Your task to perform on an android device: Go to Maps Image 0: 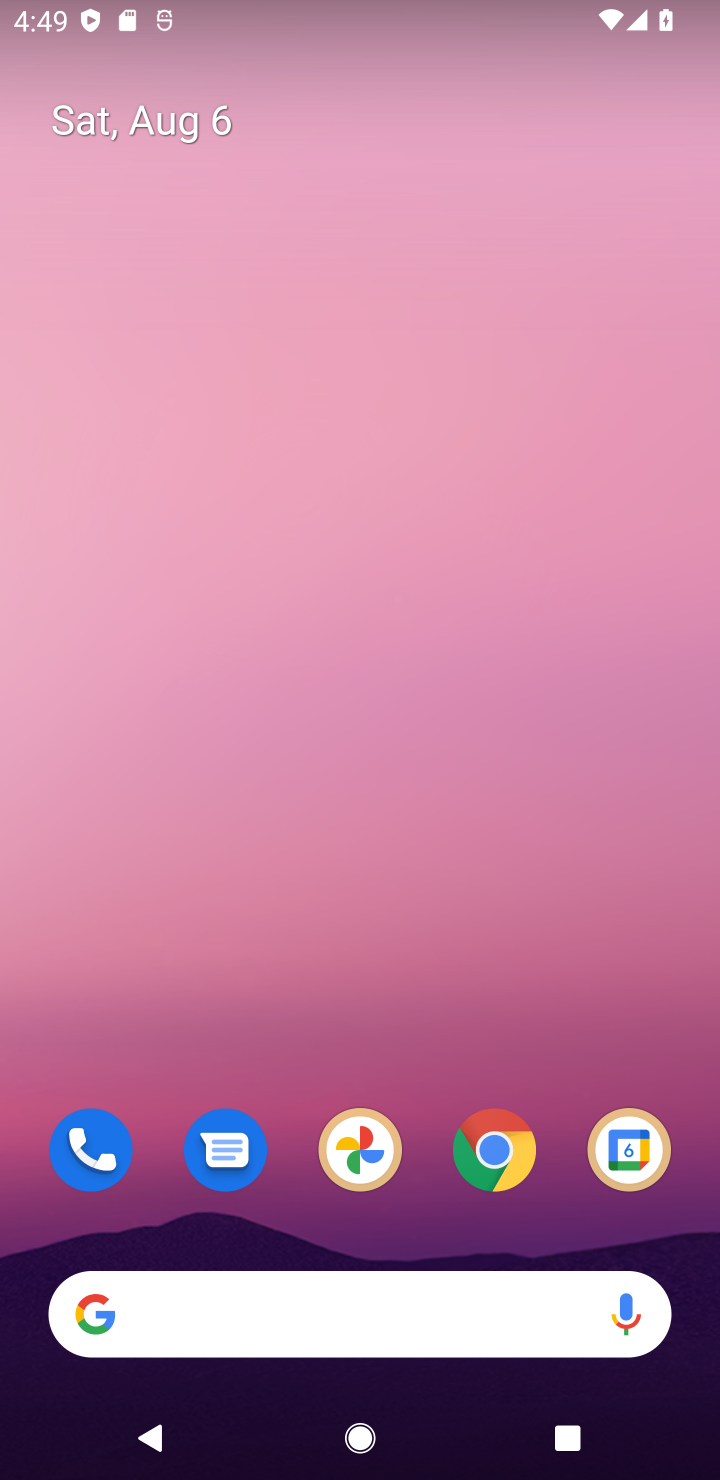
Step 0: drag from (351, 1064) to (354, 139)
Your task to perform on an android device: Go to Maps Image 1: 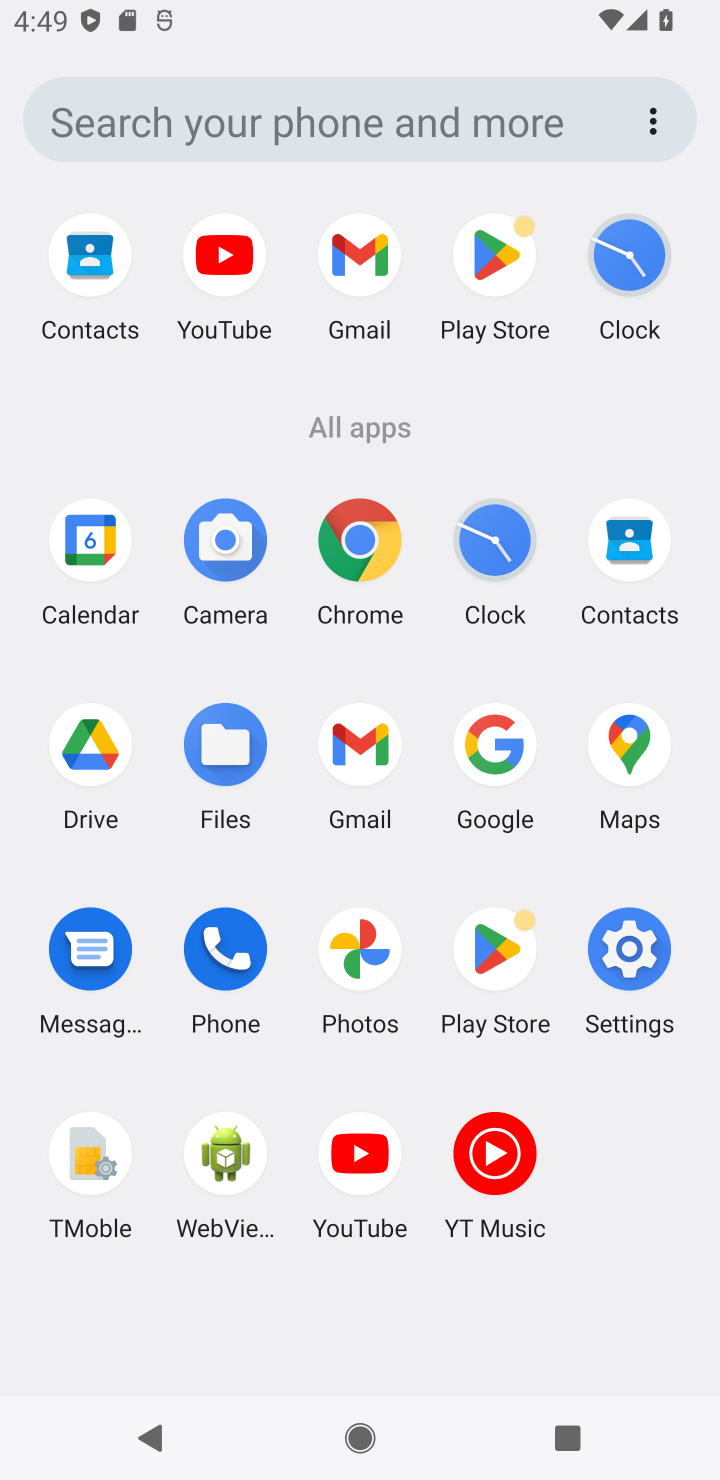
Step 1: click (634, 764)
Your task to perform on an android device: Go to Maps Image 2: 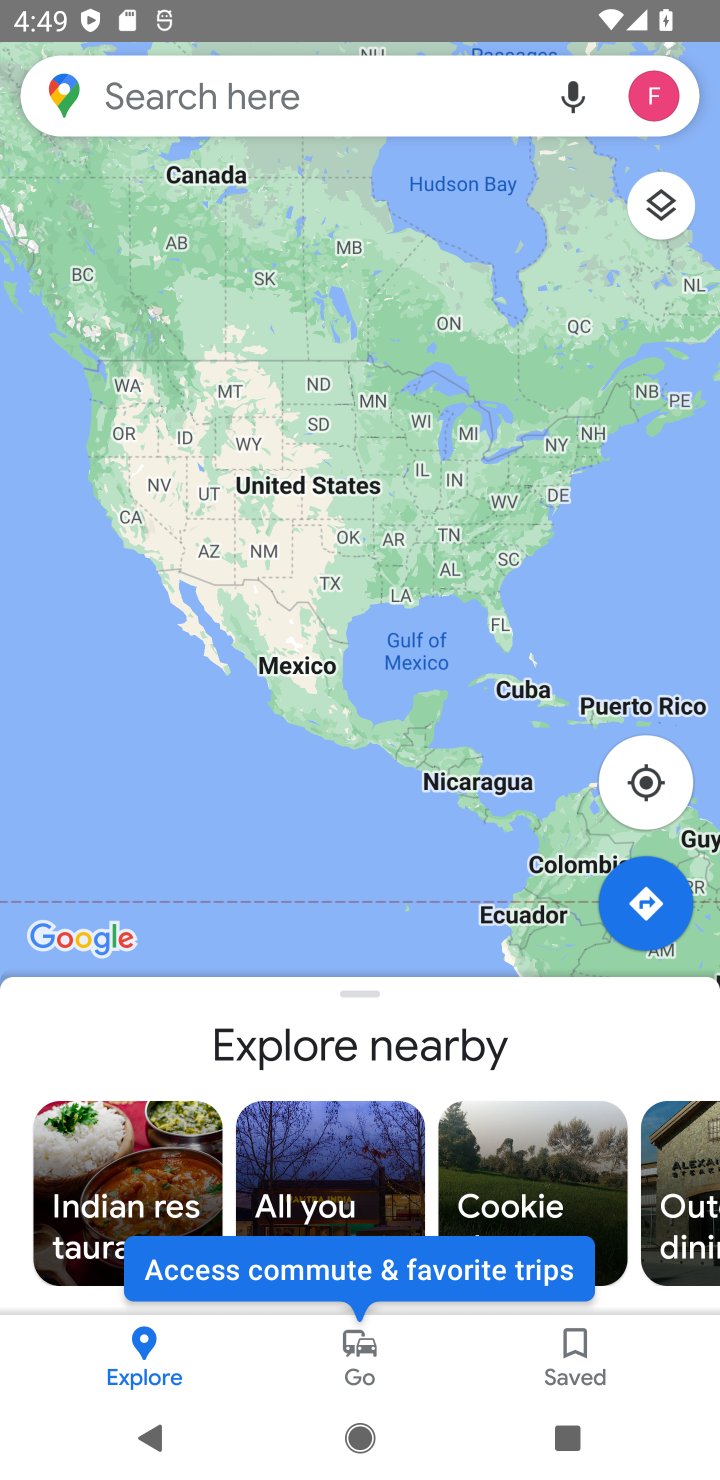
Step 2: task complete